Your task to perform on an android device: Open Reddit.com Image 0: 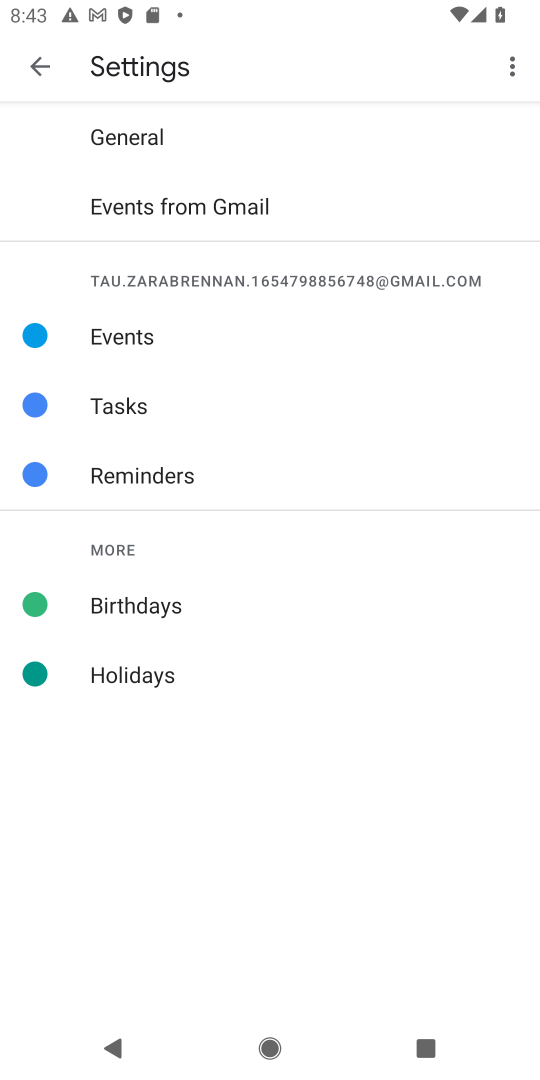
Step 0: press home button
Your task to perform on an android device: Open Reddit.com Image 1: 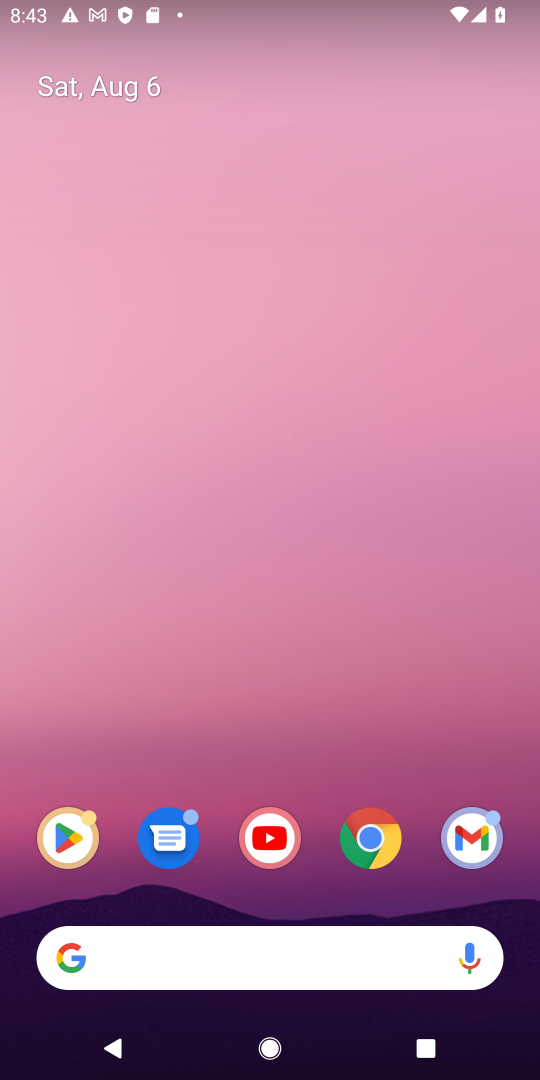
Step 1: click (361, 834)
Your task to perform on an android device: Open Reddit.com Image 2: 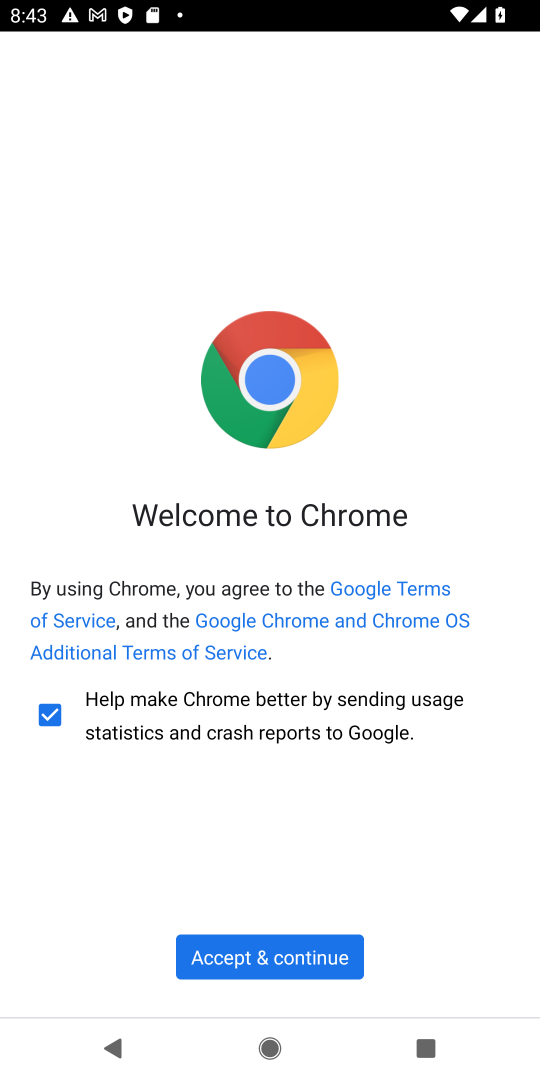
Step 2: click (206, 965)
Your task to perform on an android device: Open Reddit.com Image 3: 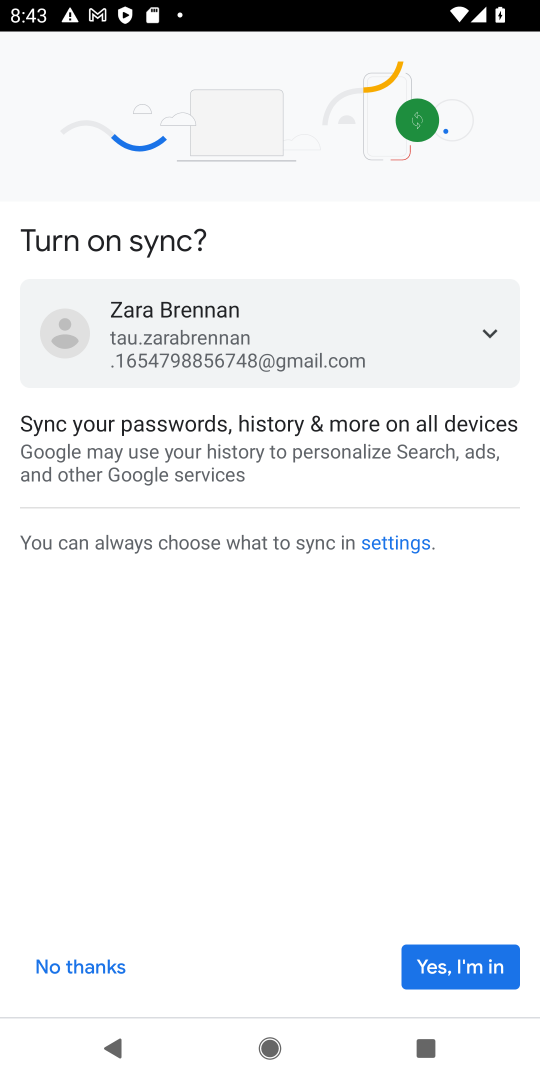
Step 3: click (446, 964)
Your task to perform on an android device: Open Reddit.com Image 4: 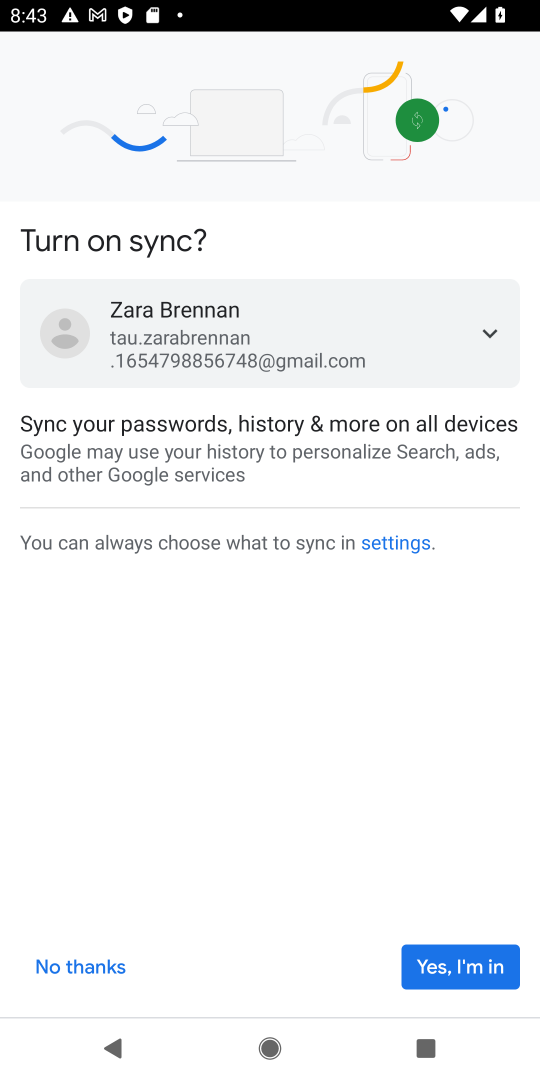
Step 4: click (445, 955)
Your task to perform on an android device: Open Reddit.com Image 5: 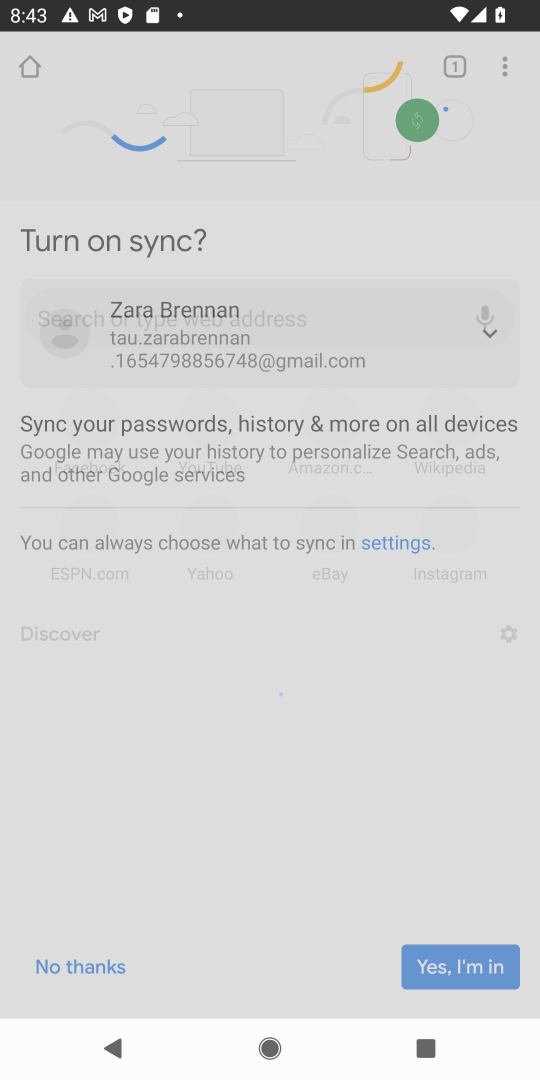
Step 5: click (456, 978)
Your task to perform on an android device: Open Reddit.com Image 6: 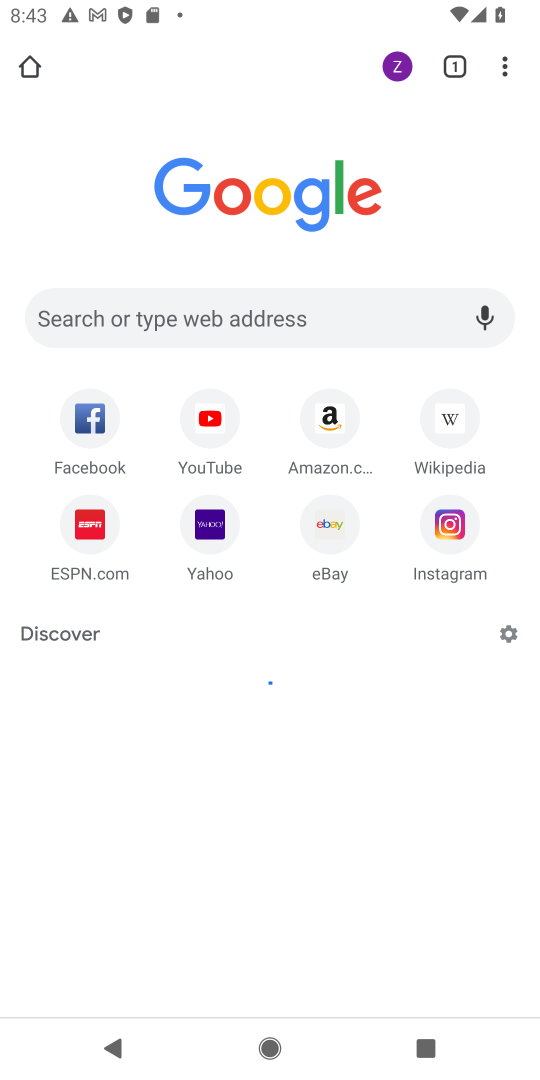
Step 6: click (339, 311)
Your task to perform on an android device: Open Reddit.com Image 7: 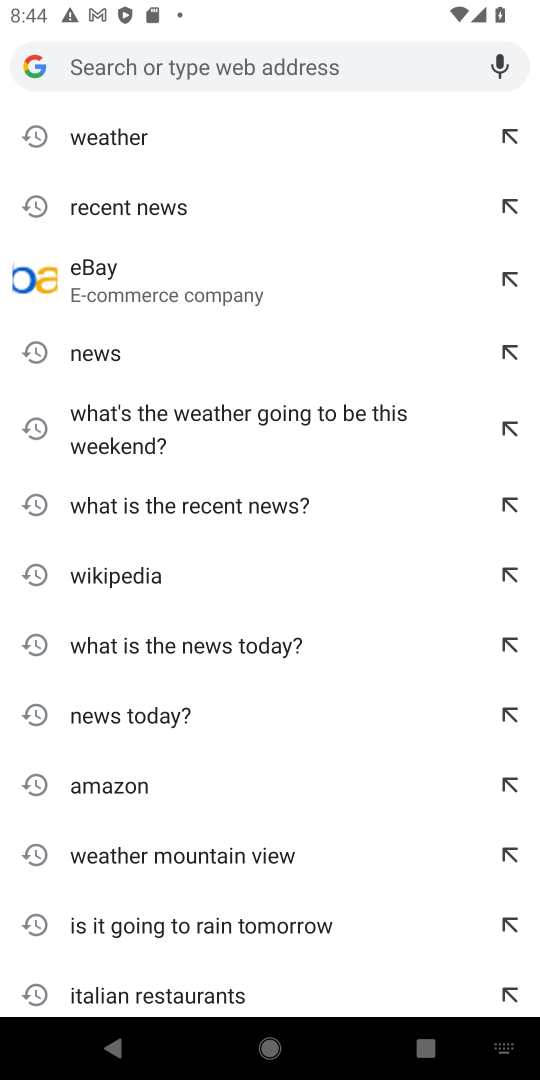
Step 7: type "reddit.com"
Your task to perform on an android device: Open Reddit.com Image 8: 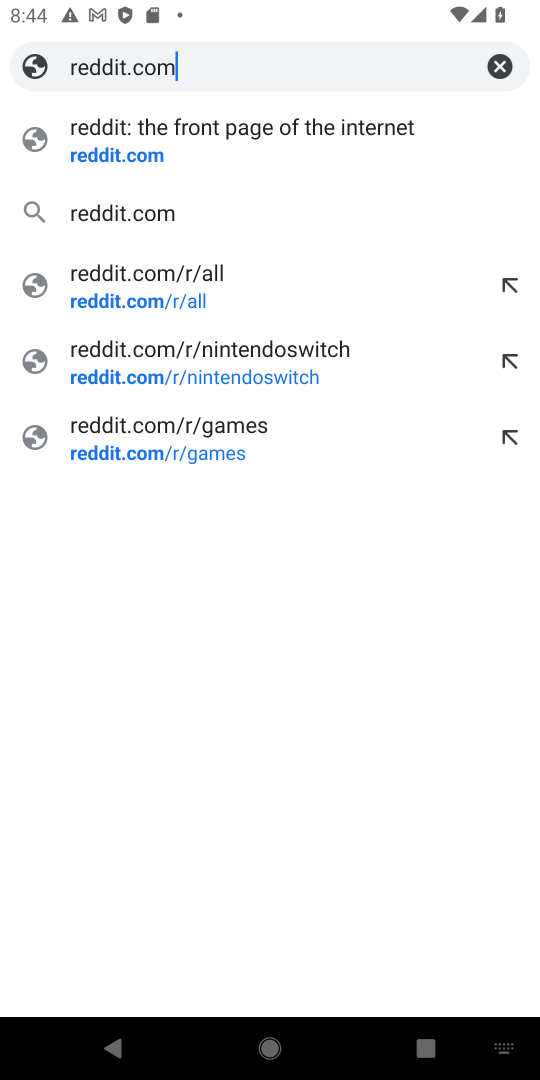
Step 8: click (267, 150)
Your task to perform on an android device: Open Reddit.com Image 9: 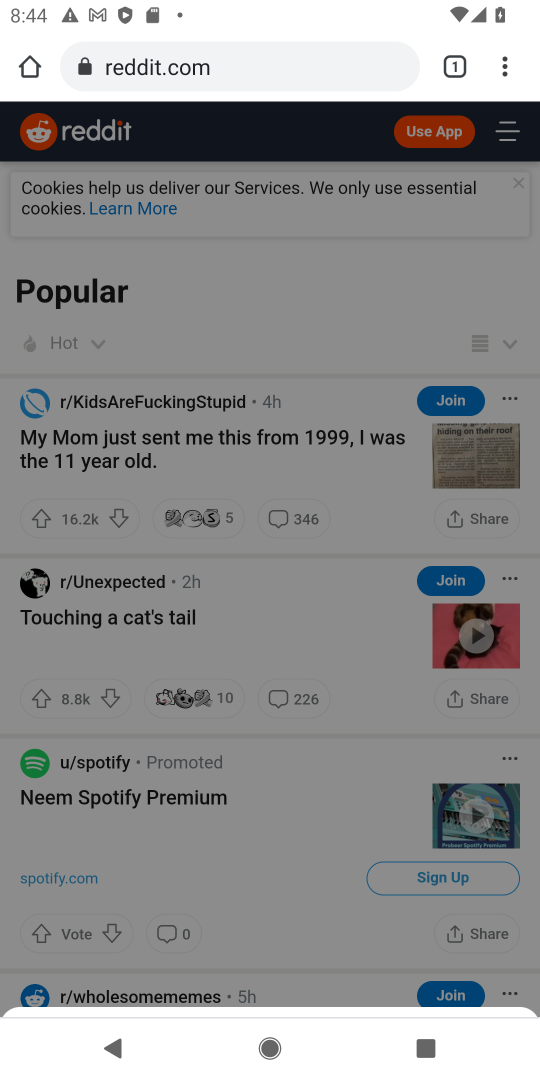
Step 9: task complete